Your task to perform on an android device: Search for Mexican restaurants on Maps Image 0: 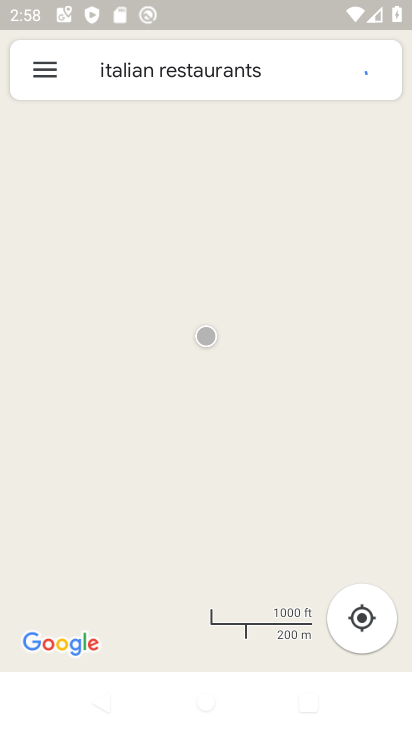
Step 0: press home button
Your task to perform on an android device: Search for Mexican restaurants on Maps Image 1: 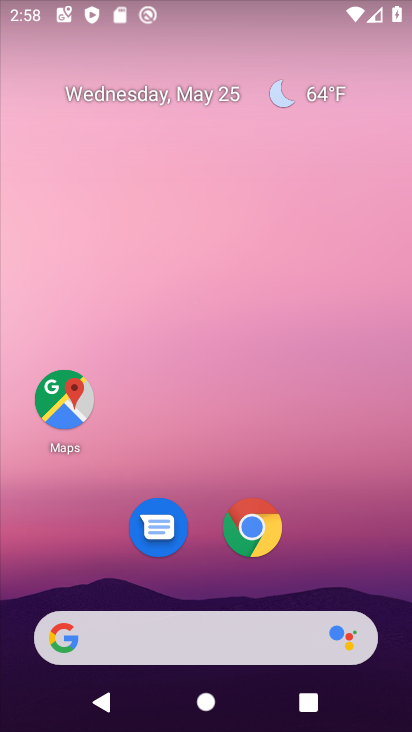
Step 1: click (58, 394)
Your task to perform on an android device: Search for Mexican restaurants on Maps Image 2: 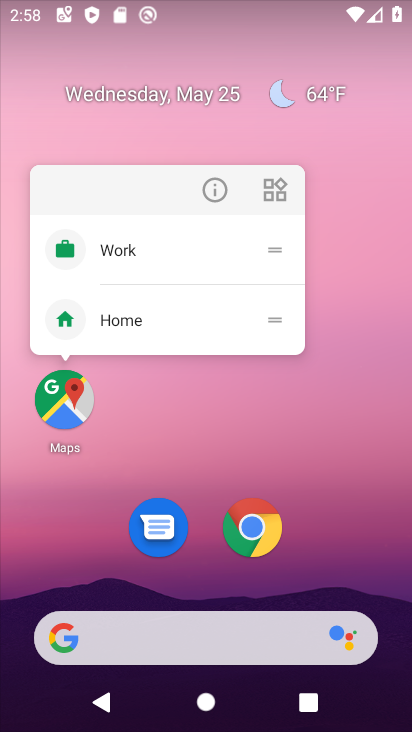
Step 2: click (57, 395)
Your task to perform on an android device: Search for Mexican restaurants on Maps Image 3: 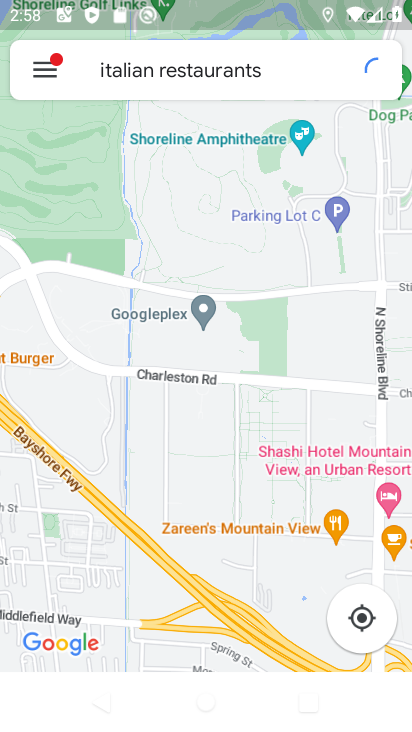
Step 3: click (281, 72)
Your task to perform on an android device: Search for Mexican restaurants on Maps Image 4: 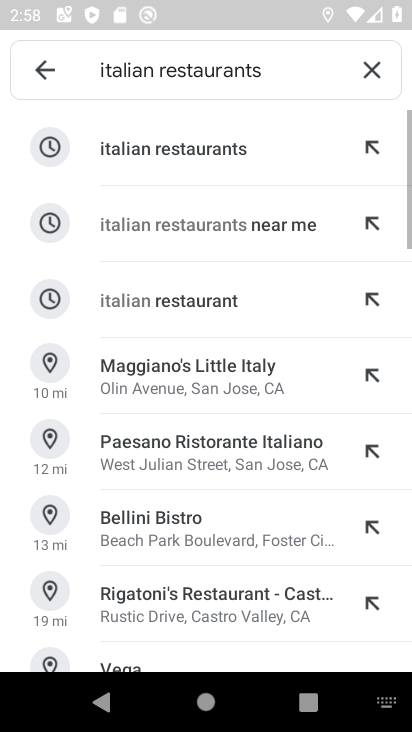
Step 4: click (371, 63)
Your task to perform on an android device: Search for Mexican restaurants on Maps Image 5: 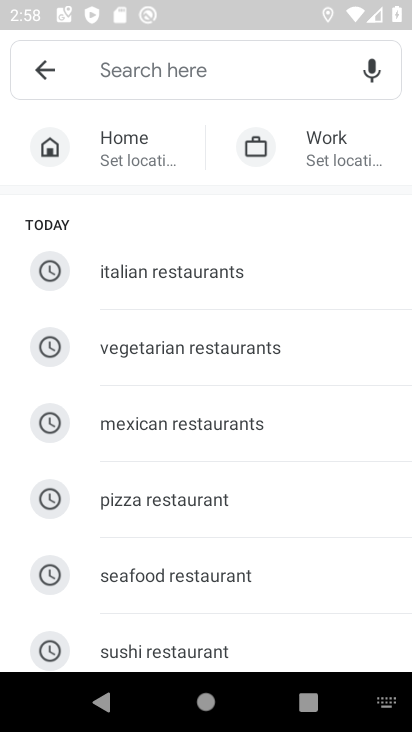
Step 5: click (132, 428)
Your task to perform on an android device: Search for Mexican restaurants on Maps Image 6: 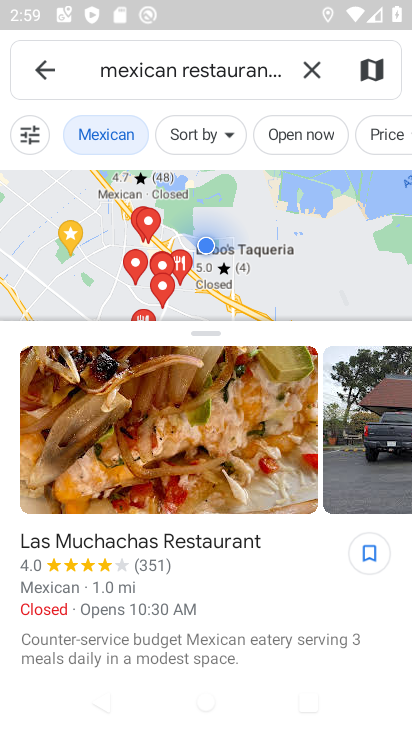
Step 6: task complete